Your task to perform on an android device: Open wifi settings Image 0: 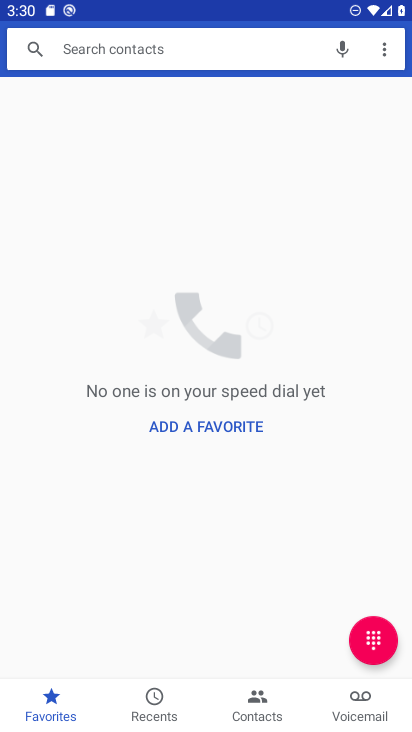
Step 0: press home button
Your task to perform on an android device: Open wifi settings Image 1: 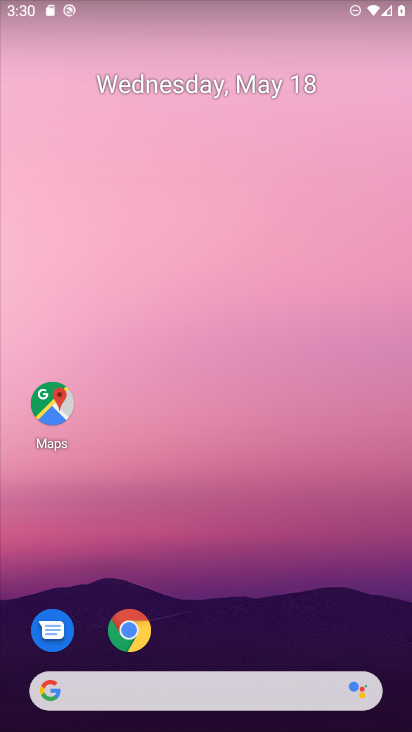
Step 1: drag from (222, 648) to (264, 31)
Your task to perform on an android device: Open wifi settings Image 2: 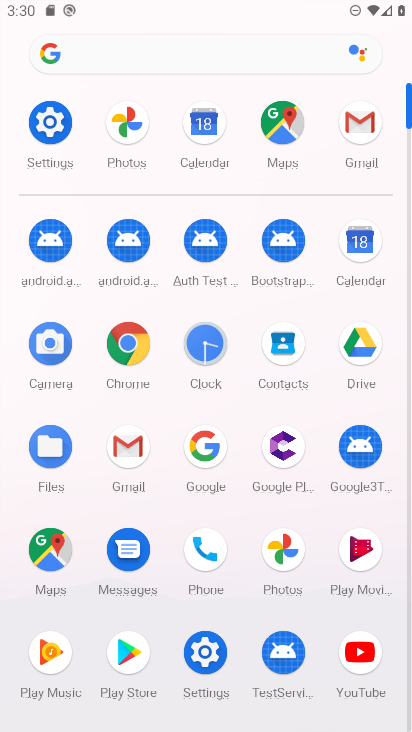
Step 2: click (50, 117)
Your task to perform on an android device: Open wifi settings Image 3: 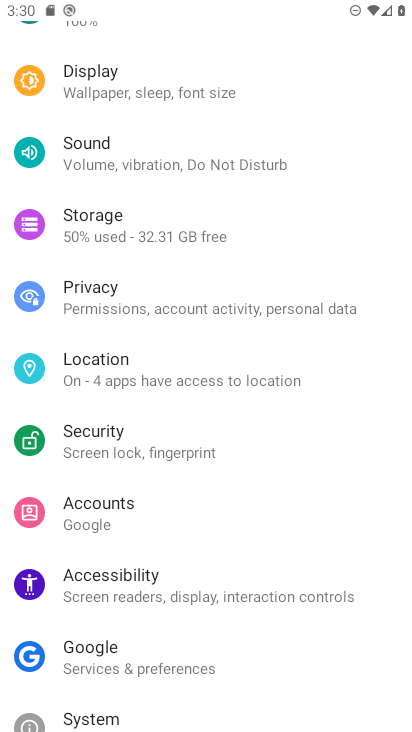
Step 3: drag from (178, 84) to (193, 708)
Your task to perform on an android device: Open wifi settings Image 4: 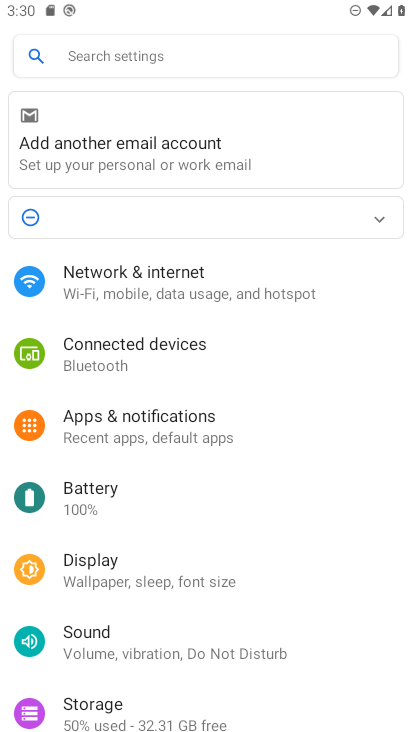
Step 4: click (164, 274)
Your task to perform on an android device: Open wifi settings Image 5: 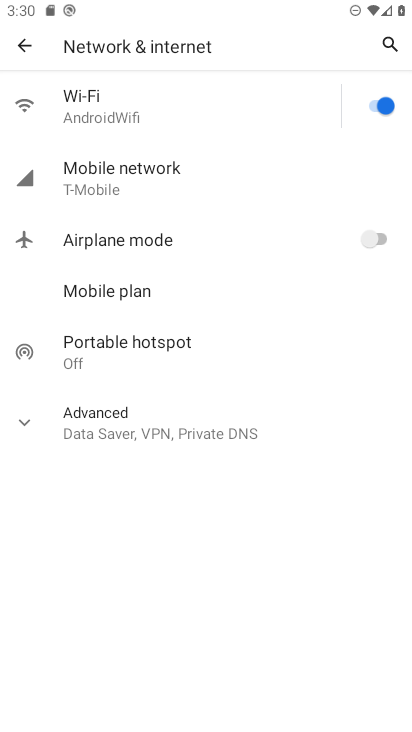
Step 5: click (128, 109)
Your task to perform on an android device: Open wifi settings Image 6: 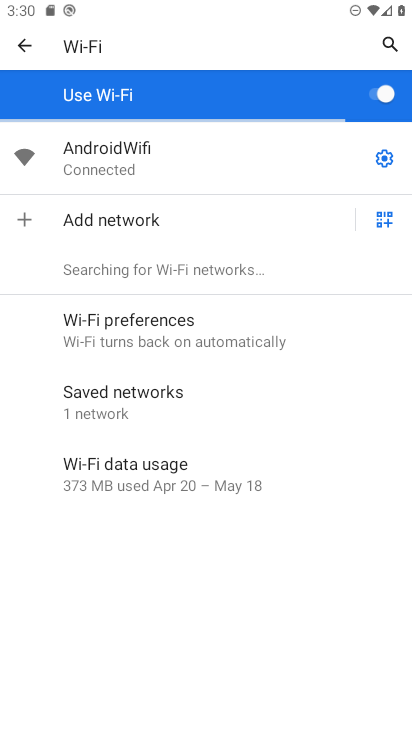
Step 6: task complete